Your task to perform on an android device: Go to wifi settings Image 0: 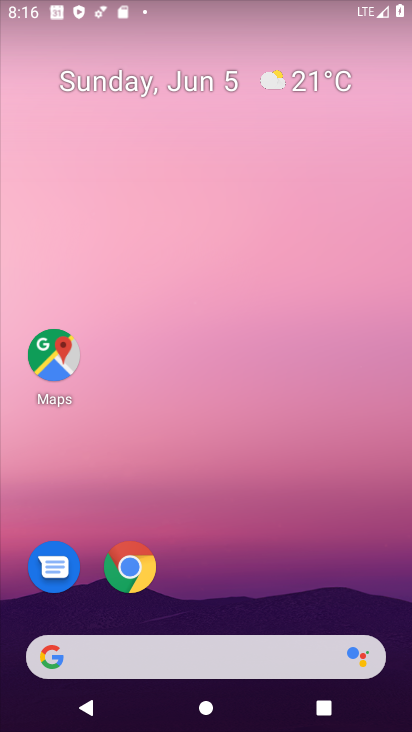
Step 0: drag from (182, 632) to (162, 248)
Your task to perform on an android device: Go to wifi settings Image 1: 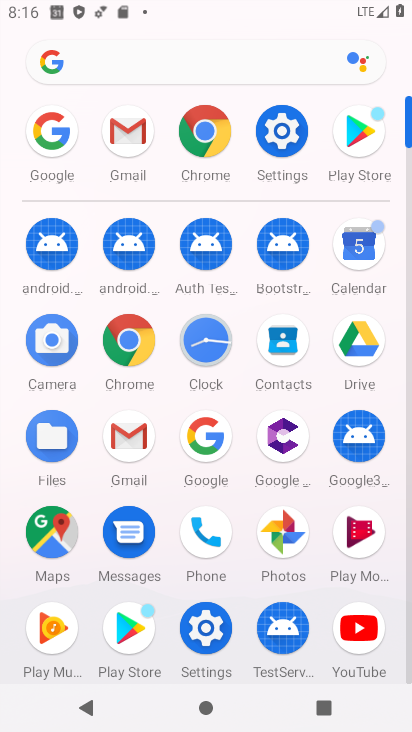
Step 1: click (273, 137)
Your task to perform on an android device: Go to wifi settings Image 2: 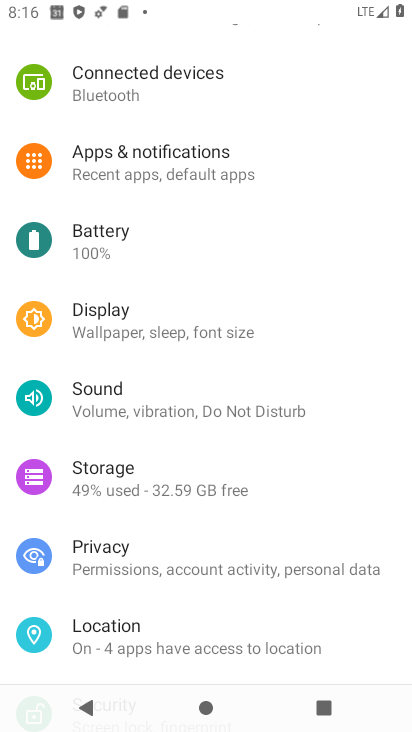
Step 2: drag from (179, 96) to (183, 482)
Your task to perform on an android device: Go to wifi settings Image 3: 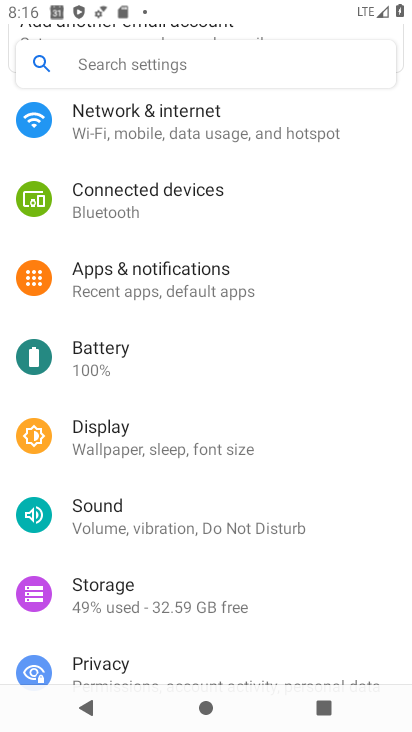
Step 3: click (126, 131)
Your task to perform on an android device: Go to wifi settings Image 4: 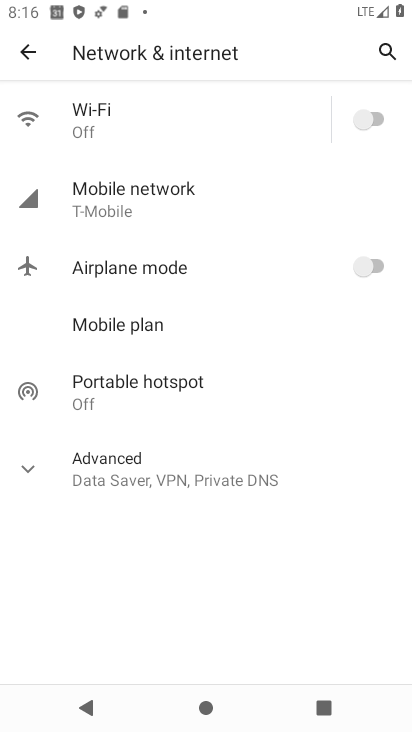
Step 4: click (115, 124)
Your task to perform on an android device: Go to wifi settings Image 5: 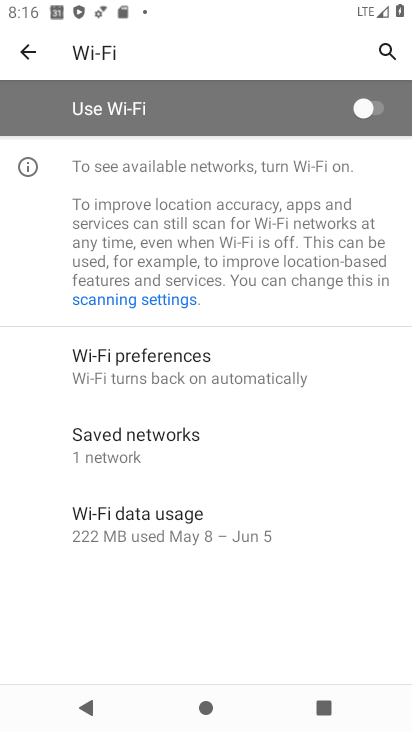
Step 5: click (364, 110)
Your task to perform on an android device: Go to wifi settings Image 6: 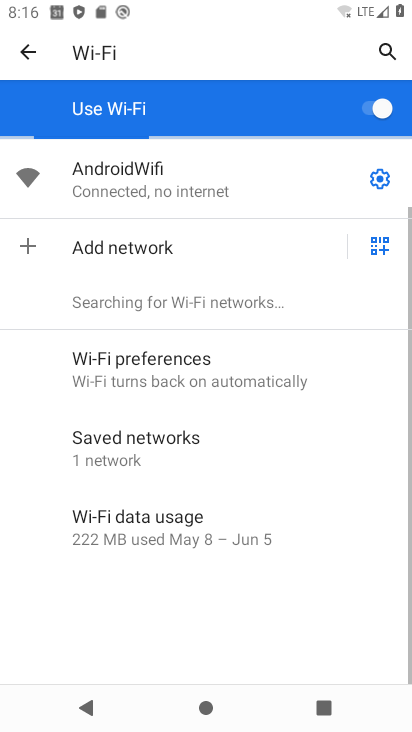
Step 6: click (377, 183)
Your task to perform on an android device: Go to wifi settings Image 7: 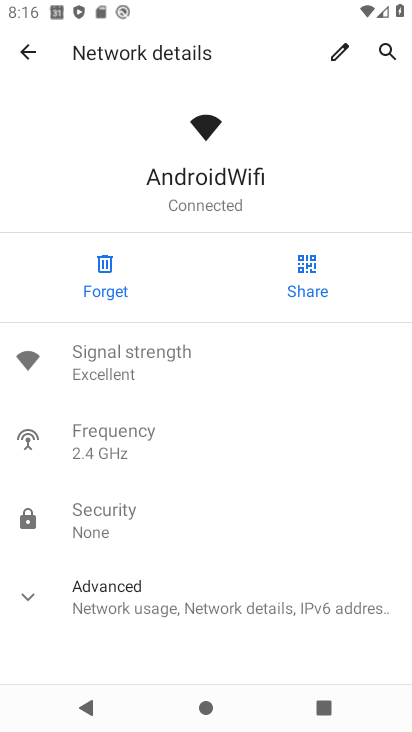
Step 7: click (170, 596)
Your task to perform on an android device: Go to wifi settings Image 8: 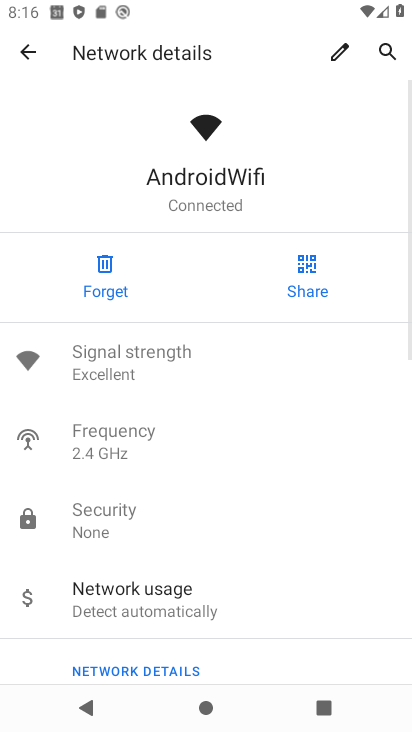
Step 8: task complete